Your task to perform on an android device: Open Android settings Image 0: 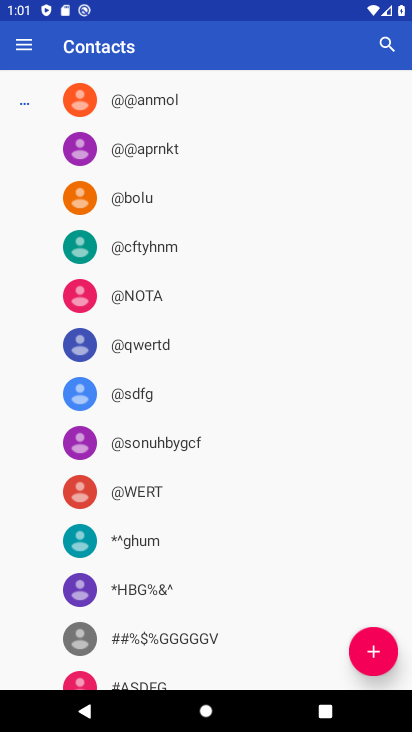
Step 0: press home button
Your task to perform on an android device: Open Android settings Image 1: 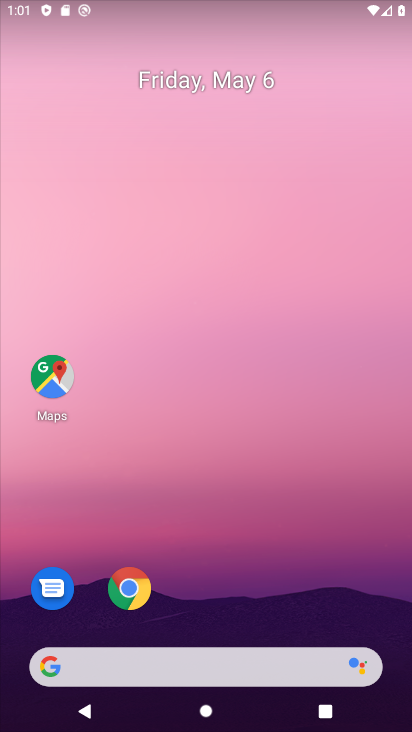
Step 1: drag from (394, 588) to (362, 170)
Your task to perform on an android device: Open Android settings Image 2: 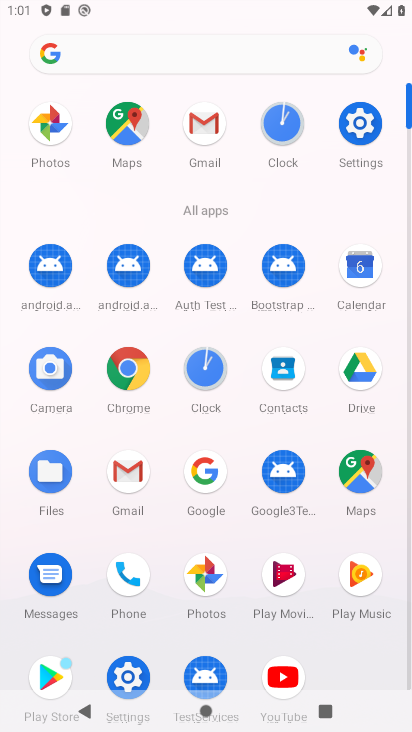
Step 2: click (130, 676)
Your task to perform on an android device: Open Android settings Image 3: 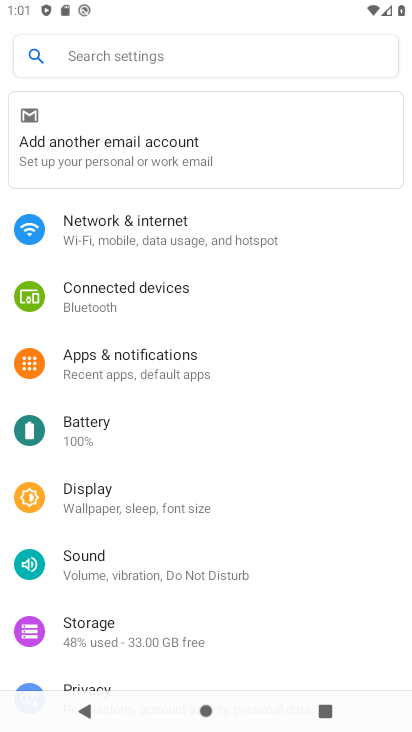
Step 3: task complete